Your task to perform on an android device: turn on priority inbox in the gmail app Image 0: 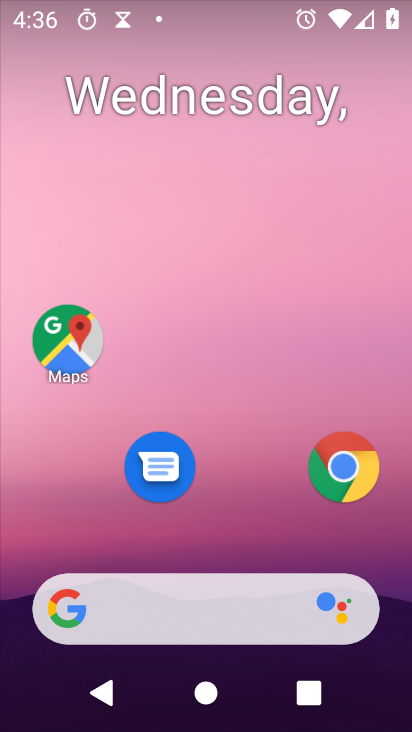
Step 0: drag from (250, 535) to (214, 94)
Your task to perform on an android device: turn on priority inbox in the gmail app Image 1: 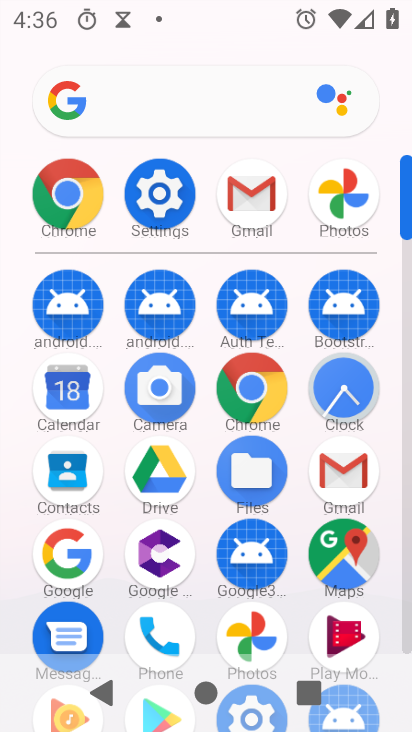
Step 1: click (263, 207)
Your task to perform on an android device: turn on priority inbox in the gmail app Image 2: 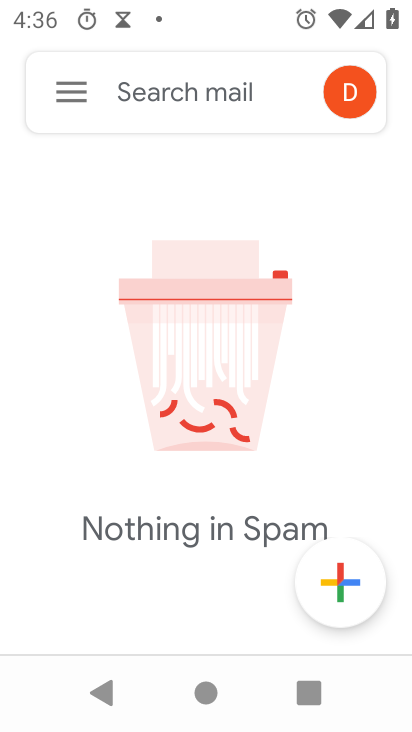
Step 2: click (81, 94)
Your task to perform on an android device: turn on priority inbox in the gmail app Image 3: 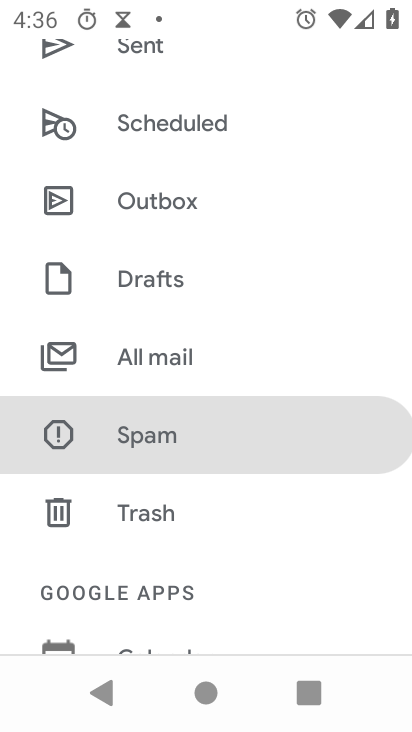
Step 3: drag from (274, 644) to (254, 126)
Your task to perform on an android device: turn on priority inbox in the gmail app Image 4: 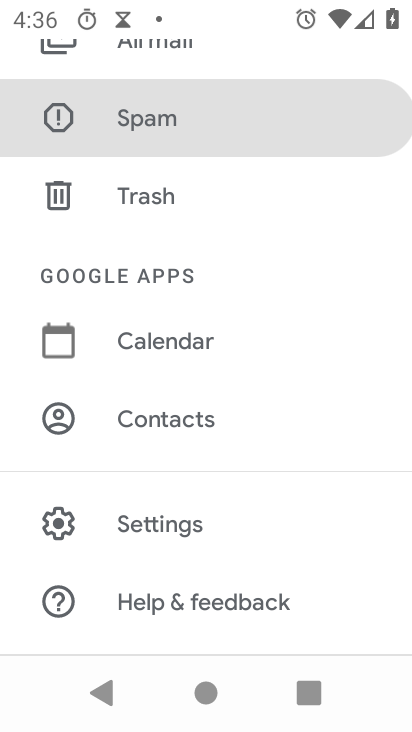
Step 4: click (182, 532)
Your task to perform on an android device: turn on priority inbox in the gmail app Image 5: 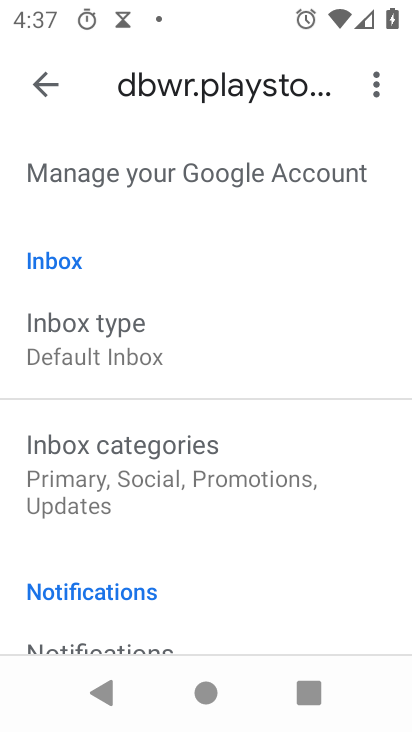
Step 5: click (223, 378)
Your task to perform on an android device: turn on priority inbox in the gmail app Image 6: 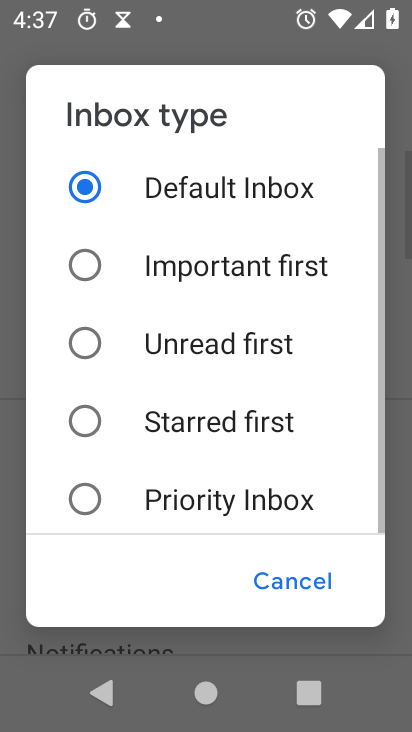
Step 6: click (218, 499)
Your task to perform on an android device: turn on priority inbox in the gmail app Image 7: 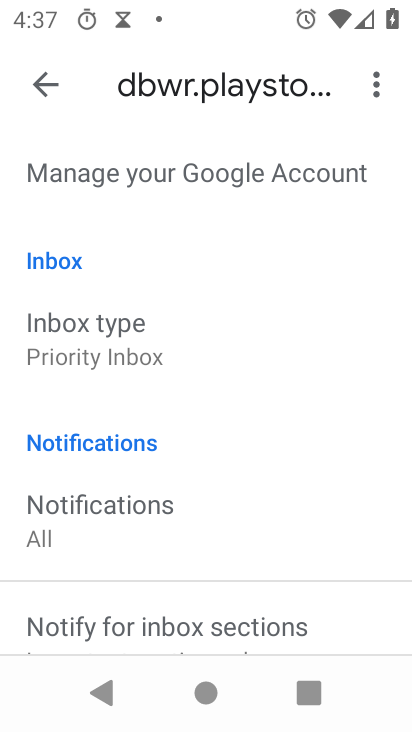
Step 7: task complete